Your task to perform on an android device: toggle location history Image 0: 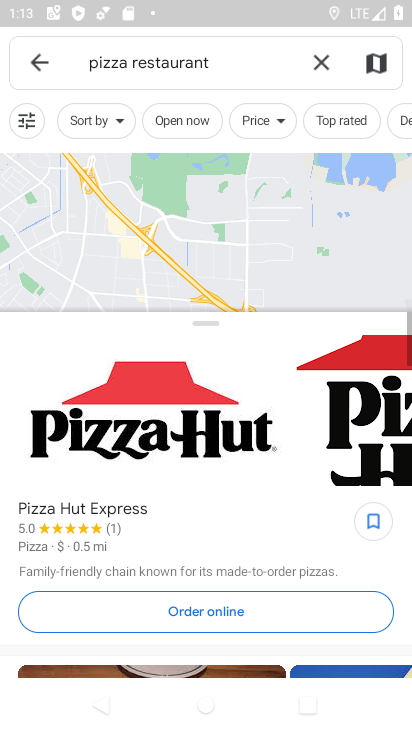
Step 0: press home button
Your task to perform on an android device: toggle location history Image 1: 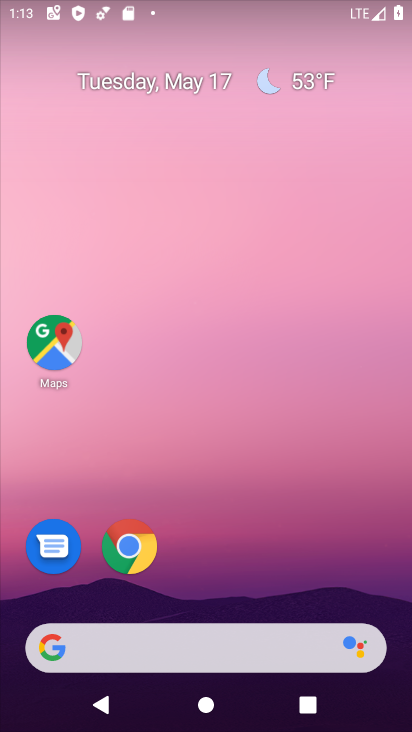
Step 1: drag from (231, 600) to (244, 143)
Your task to perform on an android device: toggle location history Image 2: 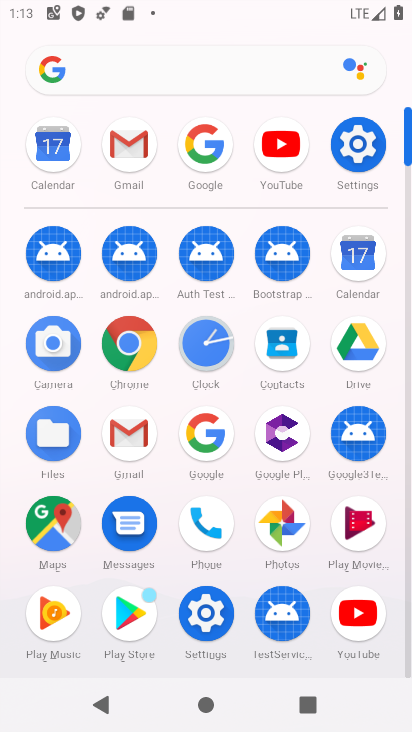
Step 2: click (340, 133)
Your task to perform on an android device: toggle location history Image 3: 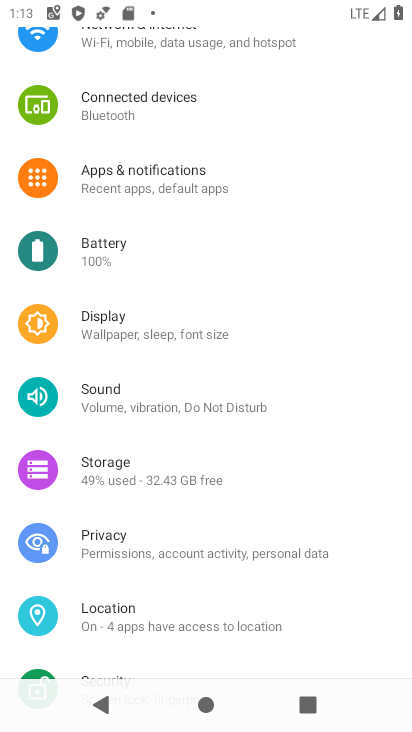
Step 3: click (158, 606)
Your task to perform on an android device: toggle location history Image 4: 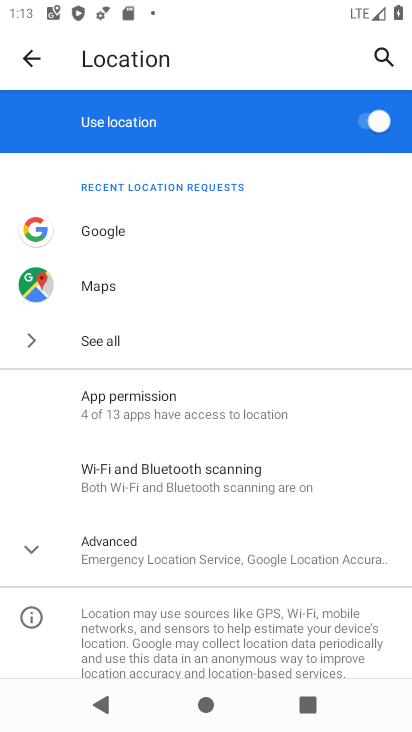
Step 4: click (189, 544)
Your task to perform on an android device: toggle location history Image 5: 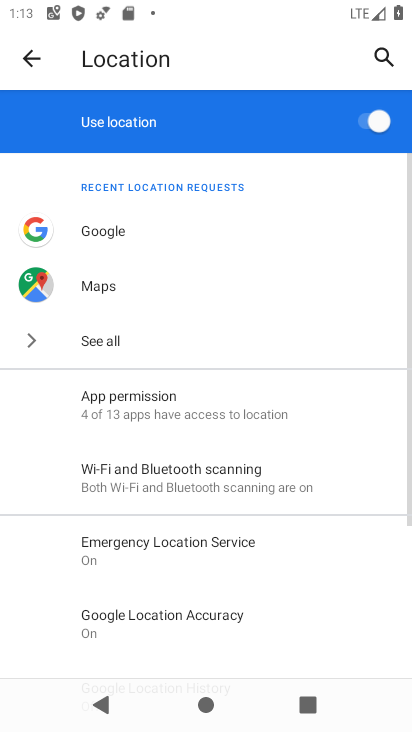
Step 5: drag from (226, 555) to (243, 415)
Your task to perform on an android device: toggle location history Image 6: 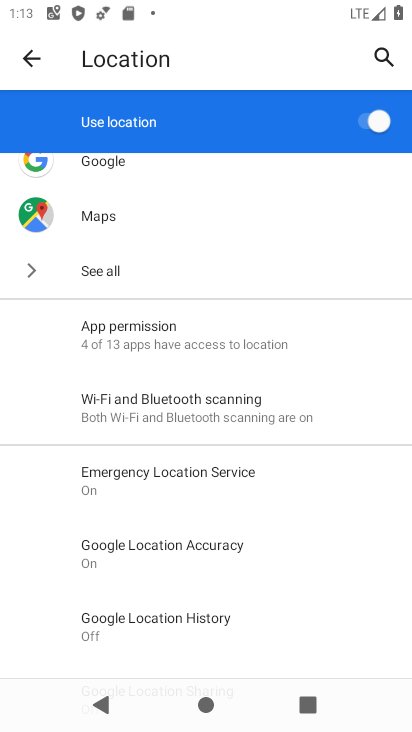
Step 6: click (246, 618)
Your task to perform on an android device: toggle location history Image 7: 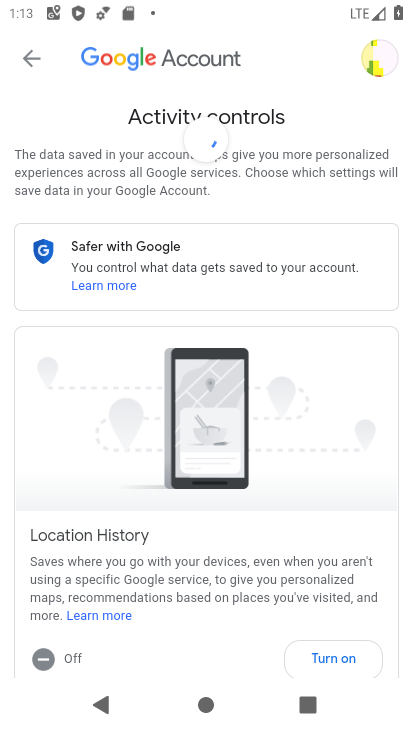
Step 7: drag from (263, 517) to (294, 319)
Your task to perform on an android device: toggle location history Image 8: 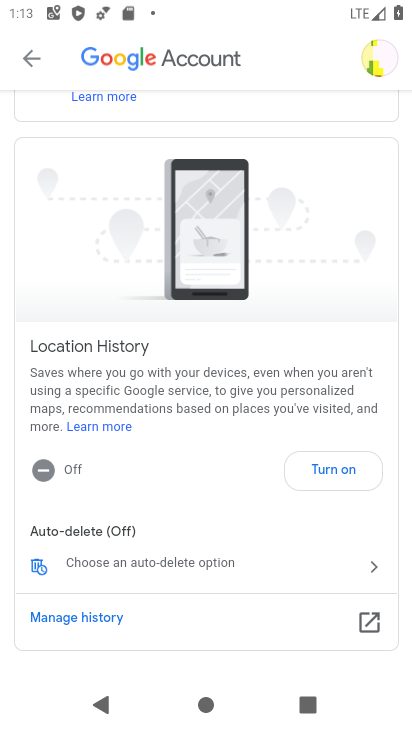
Step 8: drag from (260, 578) to (270, 357)
Your task to perform on an android device: toggle location history Image 9: 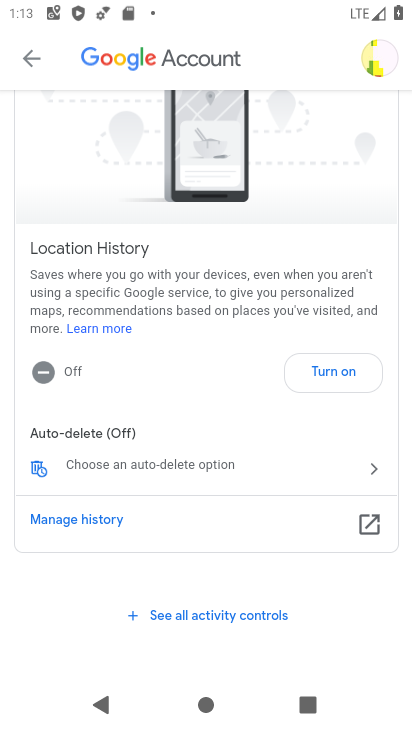
Step 9: click (331, 359)
Your task to perform on an android device: toggle location history Image 10: 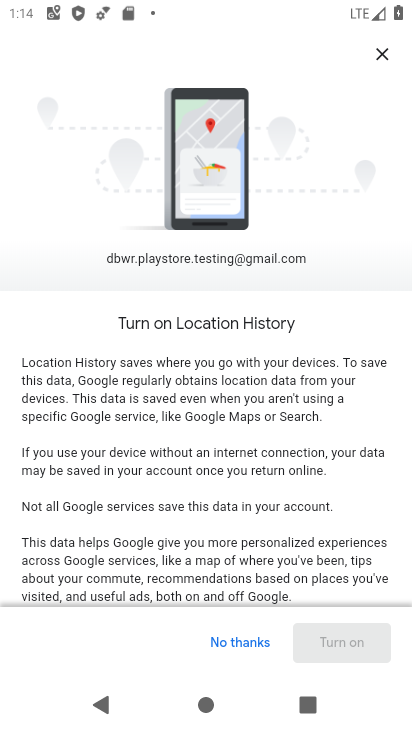
Step 10: task complete